Your task to perform on an android device: turn on priority inbox in the gmail app Image 0: 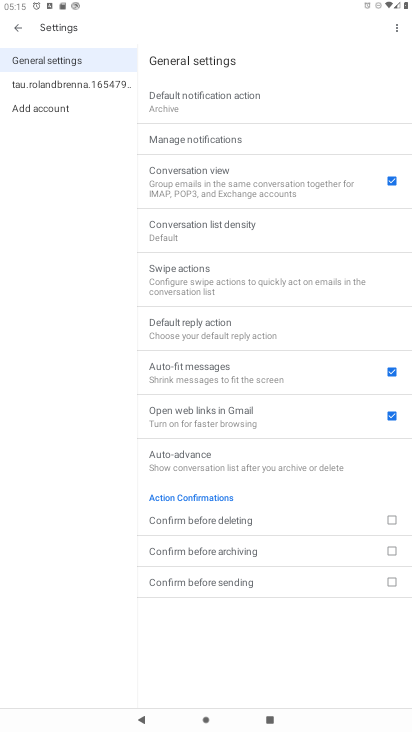
Step 0: press home button
Your task to perform on an android device: turn on priority inbox in the gmail app Image 1: 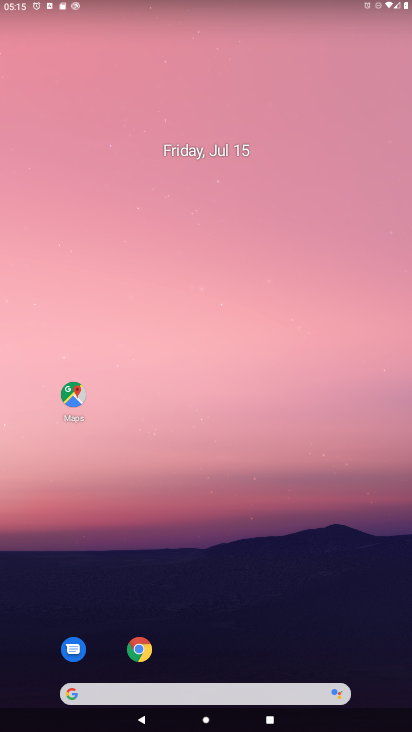
Step 1: drag from (388, 663) to (329, 187)
Your task to perform on an android device: turn on priority inbox in the gmail app Image 2: 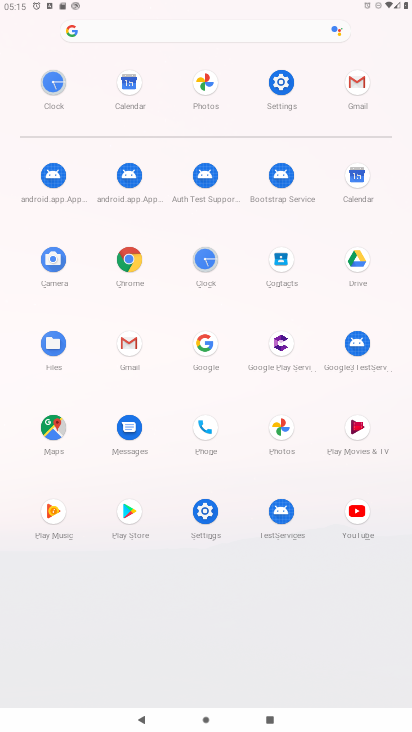
Step 2: click (128, 343)
Your task to perform on an android device: turn on priority inbox in the gmail app Image 3: 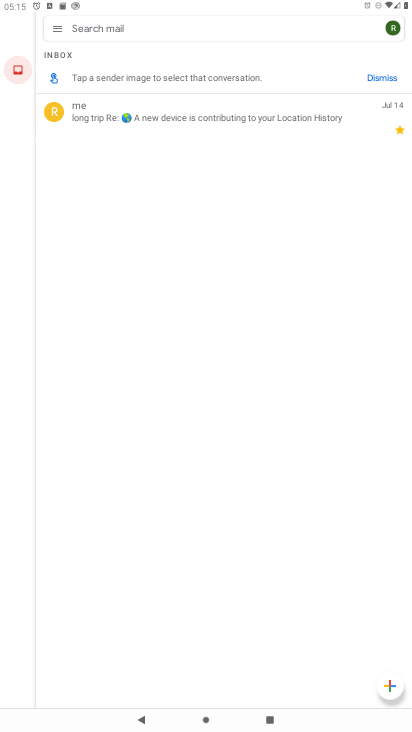
Step 3: click (56, 29)
Your task to perform on an android device: turn on priority inbox in the gmail app Image 4: 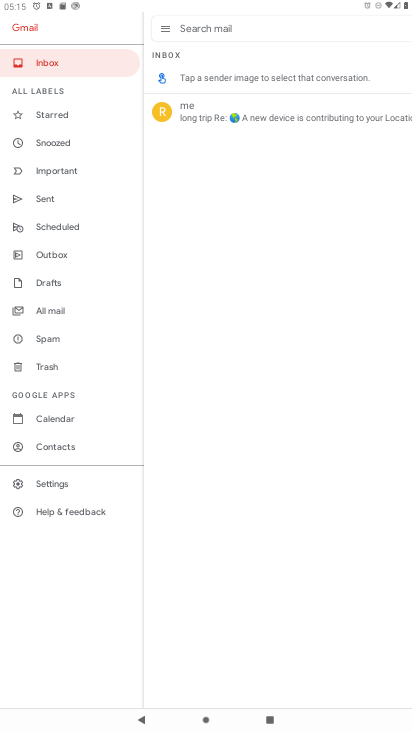
Step 4: click (56, 476)
Your task to perform on an android device: turn on priority inbox in the gmail app Image 5: 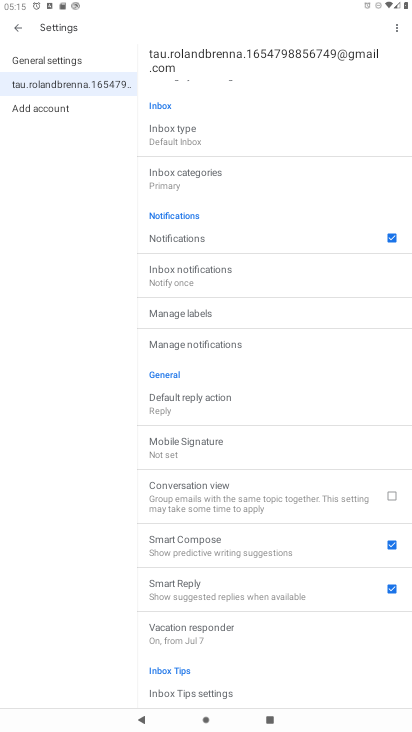
Step 5: click (178, 133)
Your task to perform on an android device: turn on priority inbox in the gmail app Image 6: 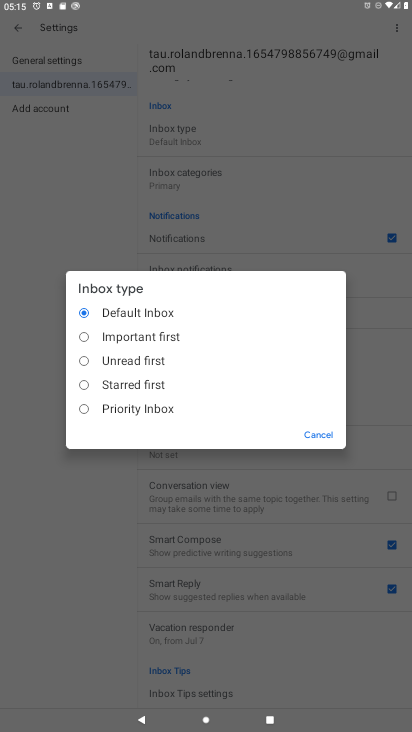
Step 6: click (87, 407)
Your task to perform on an android device: turn on priority inbox in the gmail app Image 7: 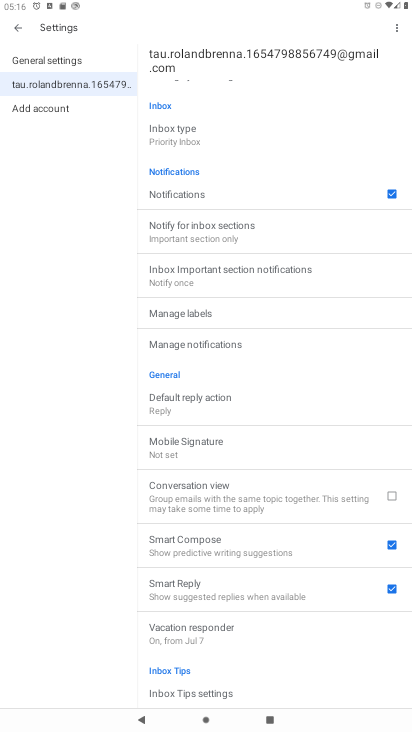
Step 7: task complete